Your task to perform on an android device: change the clock display to show seconds Image 0: 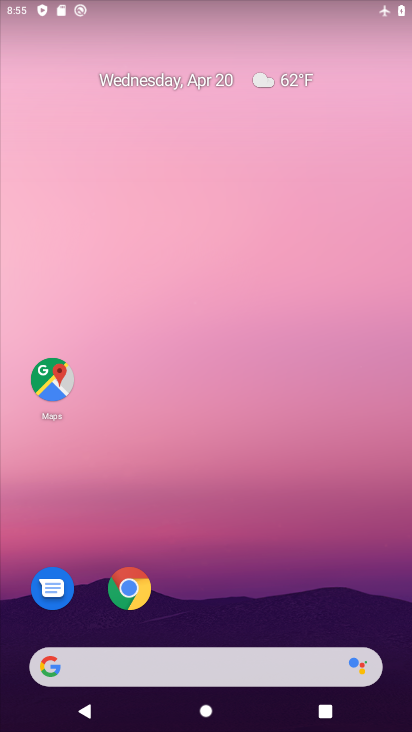
Step 0: drag from (279, 390) to (151, 0)
Your task to perform on an android device: change the clock display to show seconds Image 1: 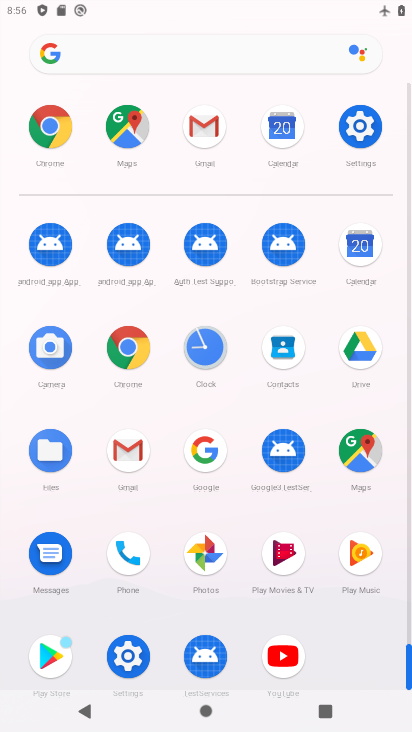
Step 1: drag from (7, 489) to (14, 292)
Your task to perform on an android device: change the clock display to show seconds Image 2: 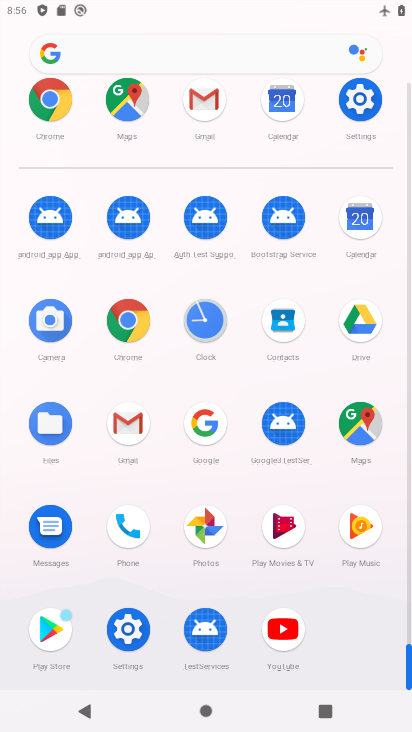
Step 2: click (205, 319)
Your task to perform on an android device: change the clock display to show seconds Image 3: 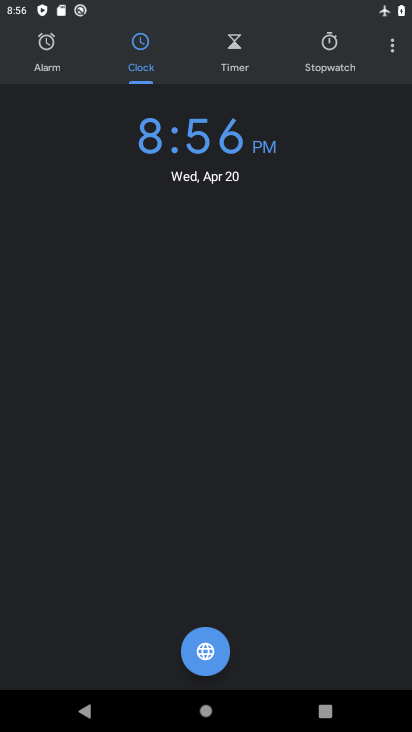
Step 3: click (386, 53)
Your task to perform on an android device: change the clock display to show seconds Image 4: 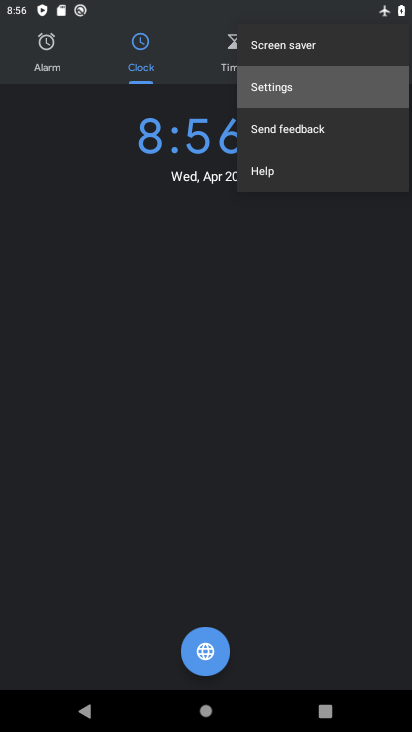
Step 4: click (396, 43)
Your task to perform on an android device: change the clock display to show seconds Image 5: 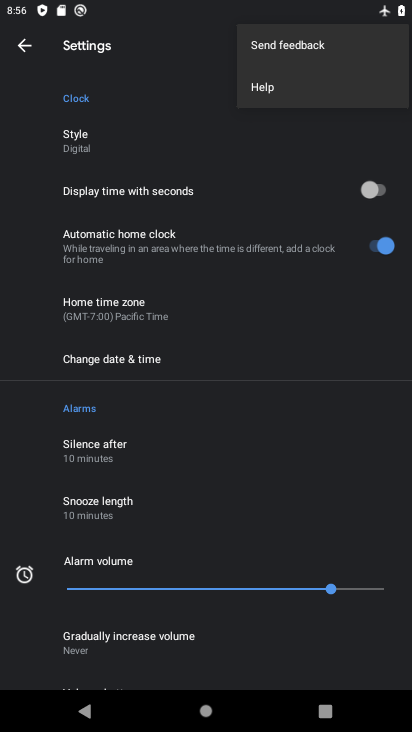
Step 5: click (384, 196)
Your task to perform on an android device: change the clock display to show seconds Image 6: 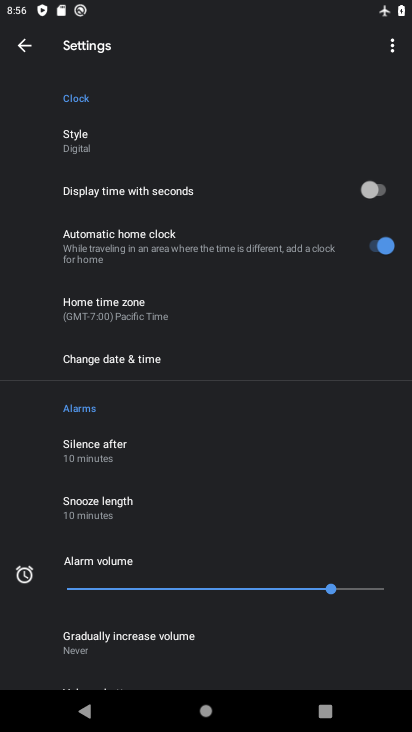
Step 6: click (376, 188)
Your task to perform on an android device: change the clock display to show seconds Image 7: 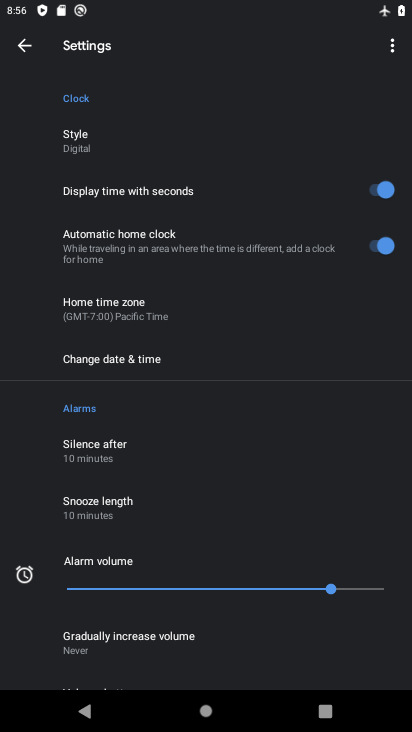
Step 7: task complete